Your task to perform on an android device: Open Android settings Image 0: 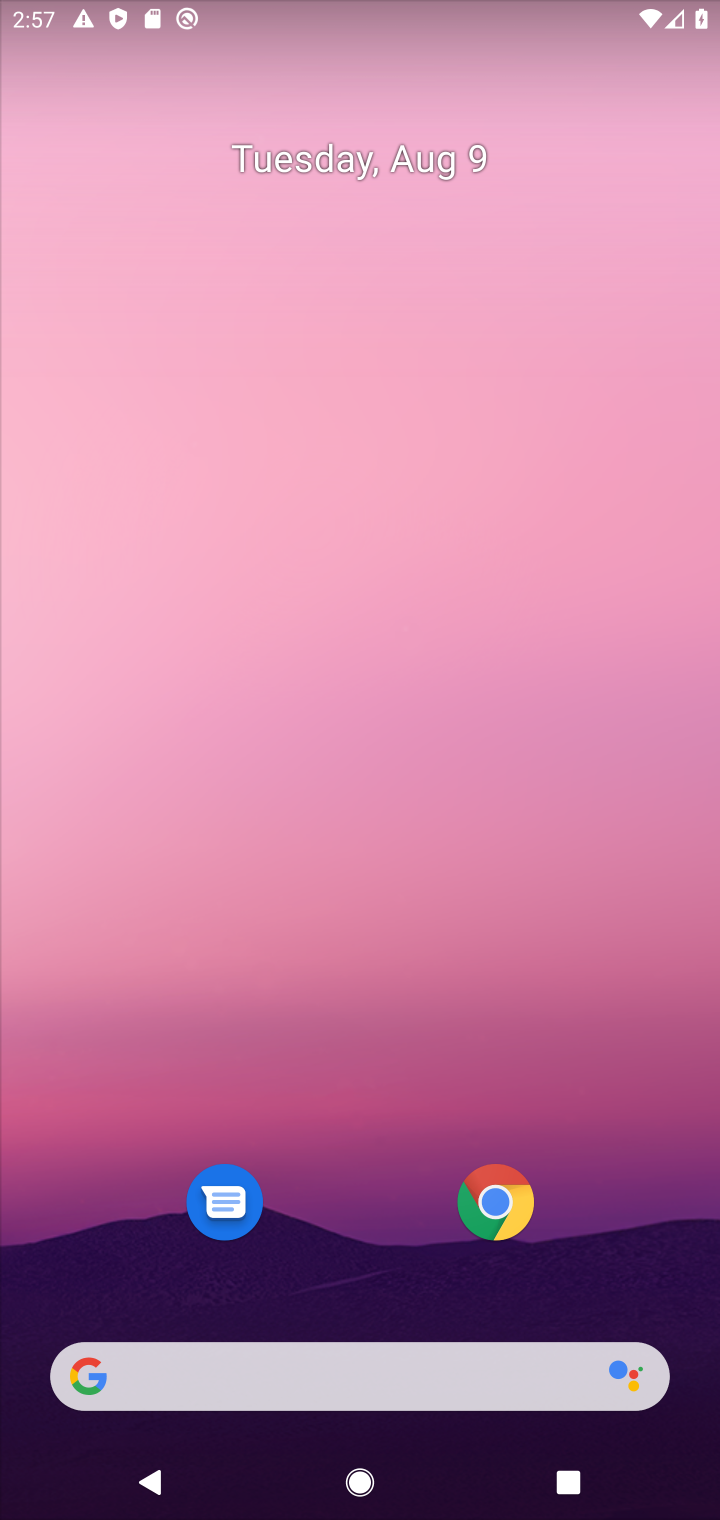
Step 0: press home button
Your task to perform on an android device: Open Android settings Image 1: 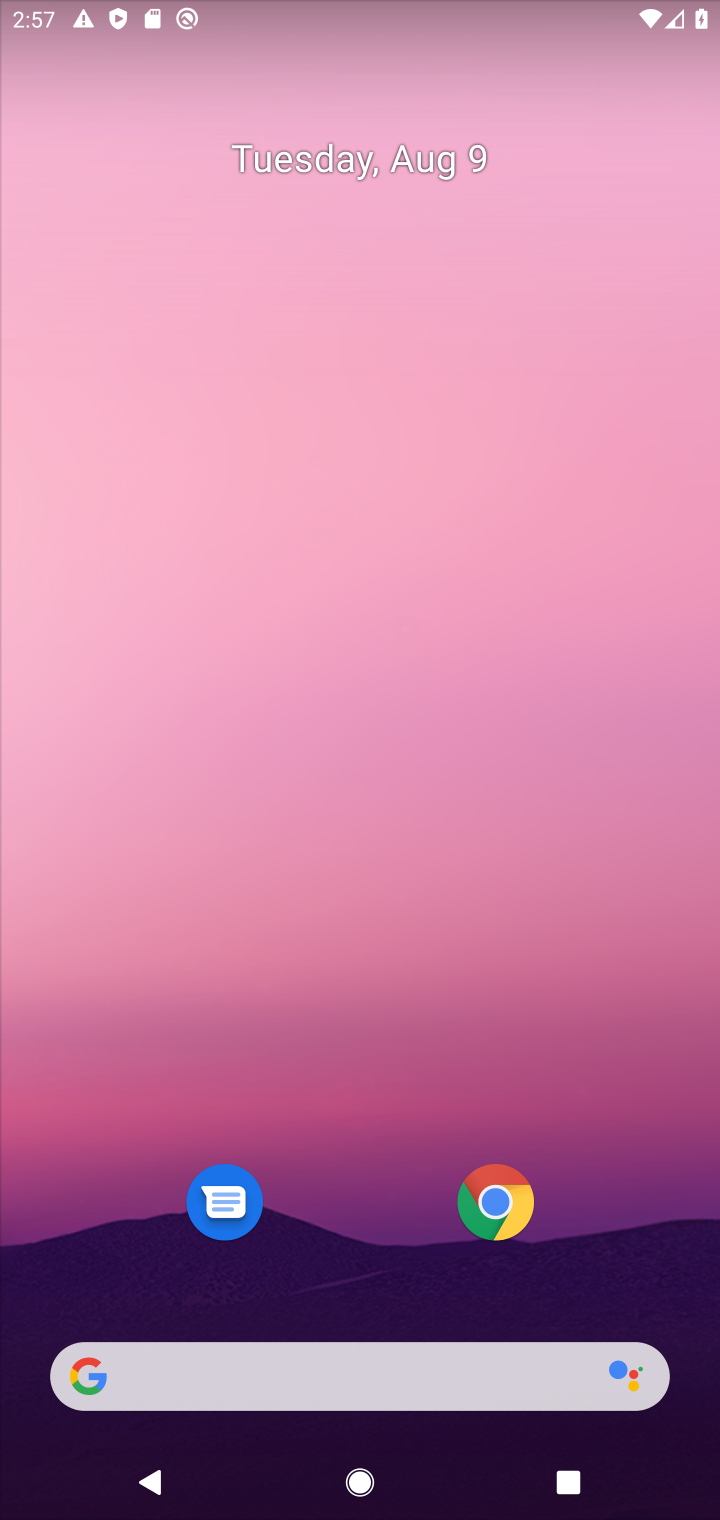
Step 1: drag from (394, 740) to (418, 295)
Your task to perform on an android device: Open Android settings Image 2: 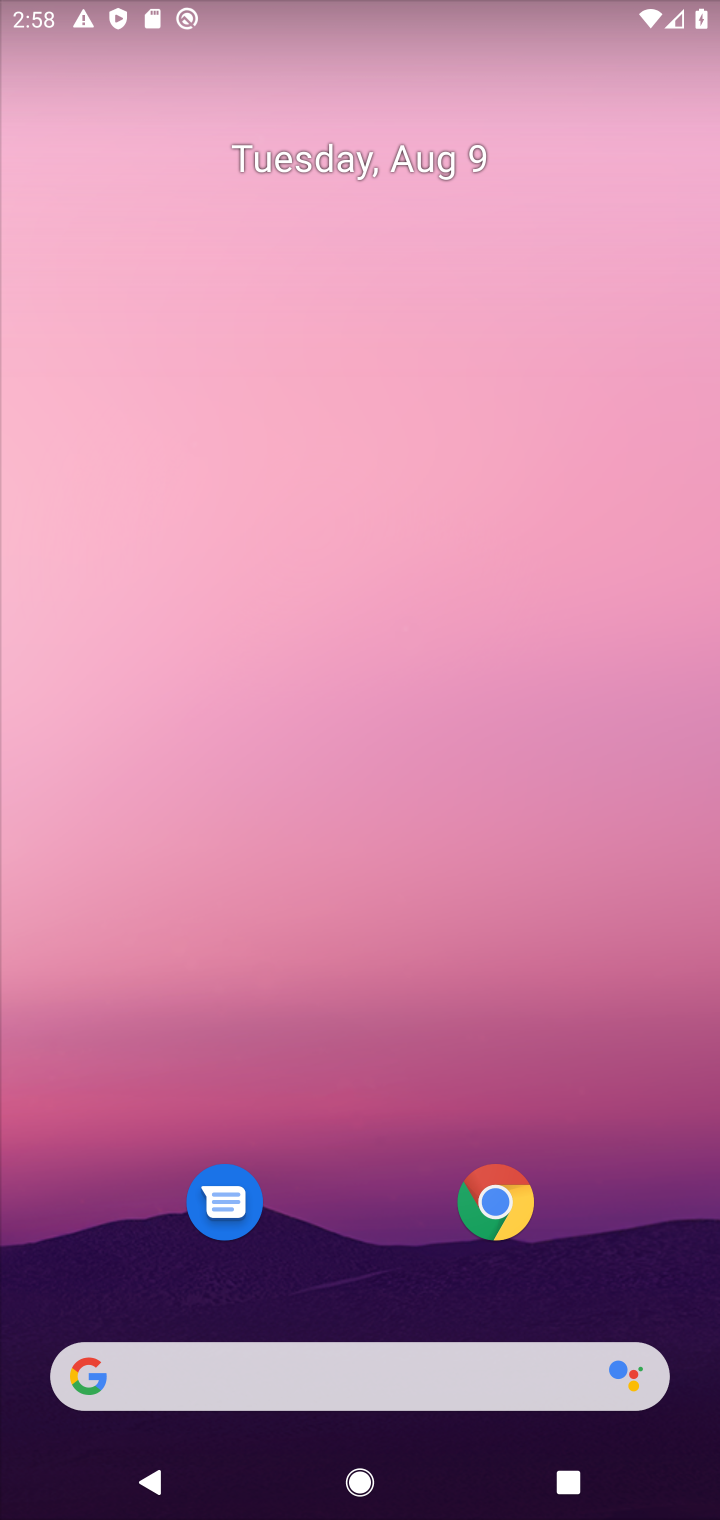
Step 2: drag from (436, 1078) to (448, 367)
Your task to perform on an android device: Open Android settings Image 3: 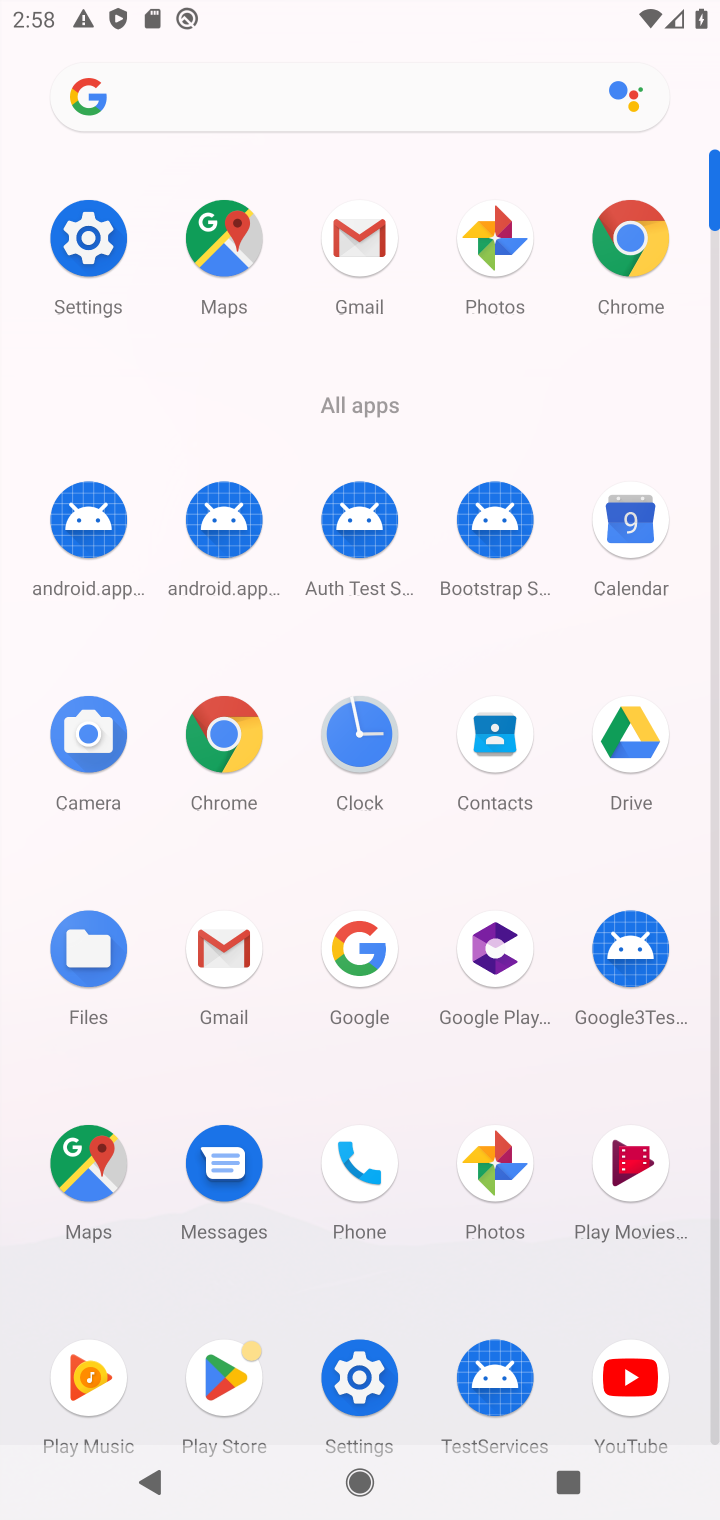
Step 3: click (61, 268)
Your task to perform on an android device: Open Android settings Image 4: 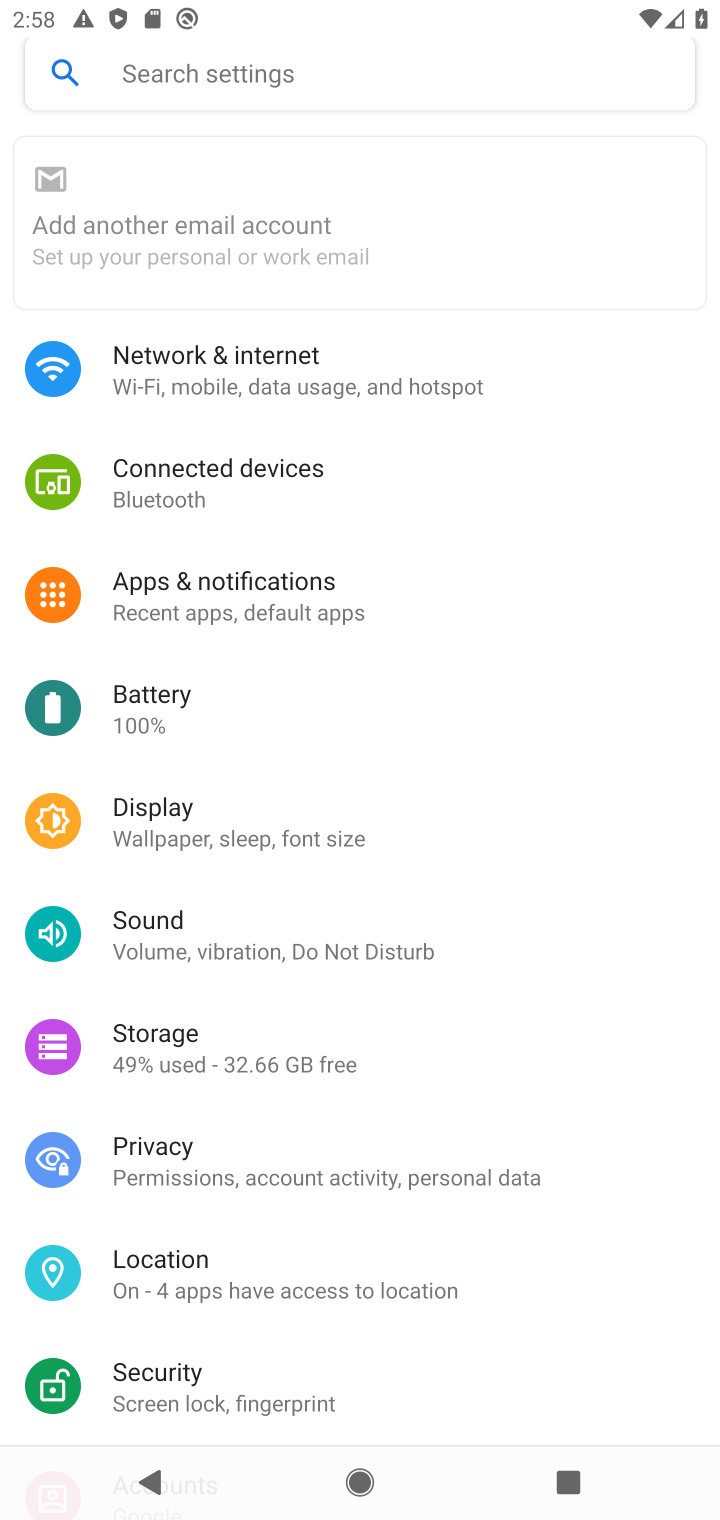
Step 4: drag from (180, 1297) to (195, 294)
Your task to perform on an android device: Open Android settings Image 5: 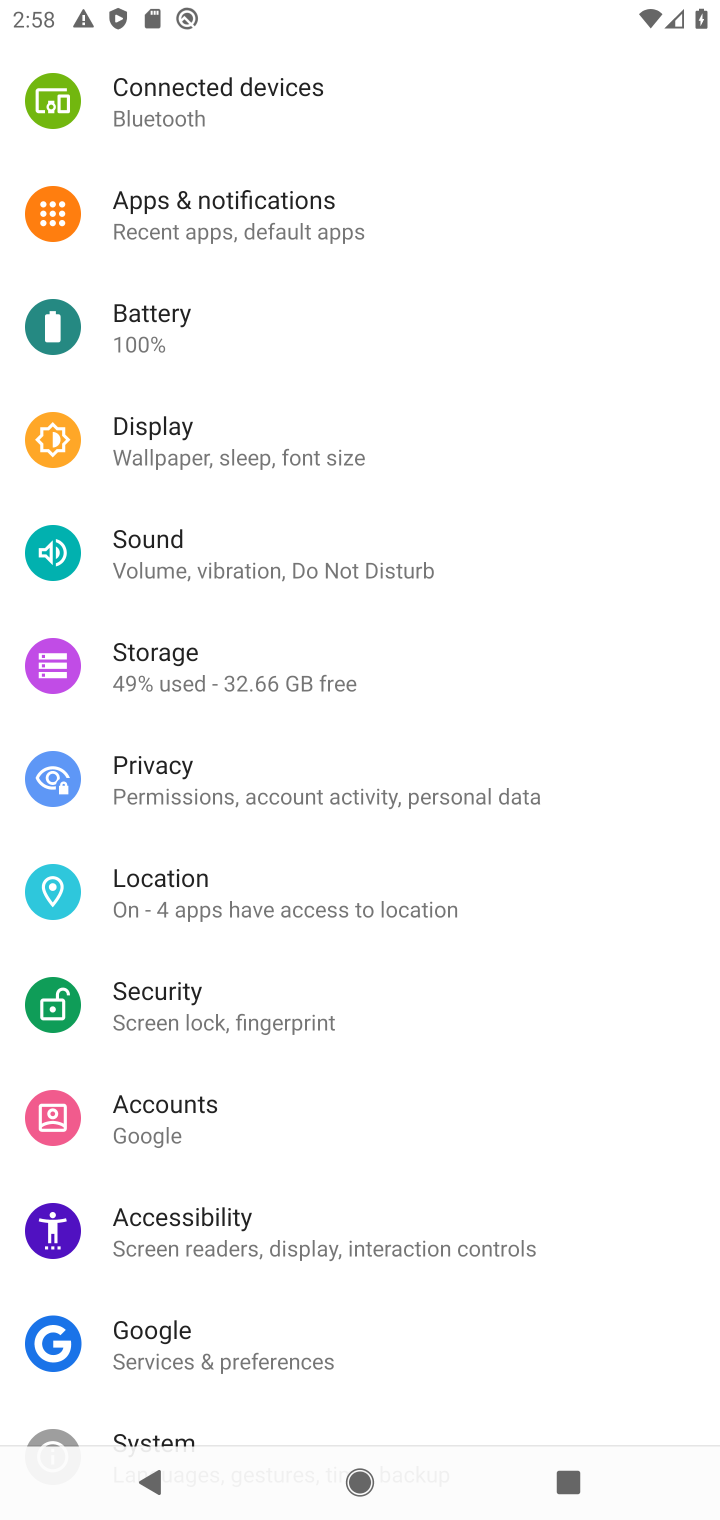
Step 5: drag from (229, 1088) to (232, 634)
Your task to perform on an android device: Open Android settings Image 6: 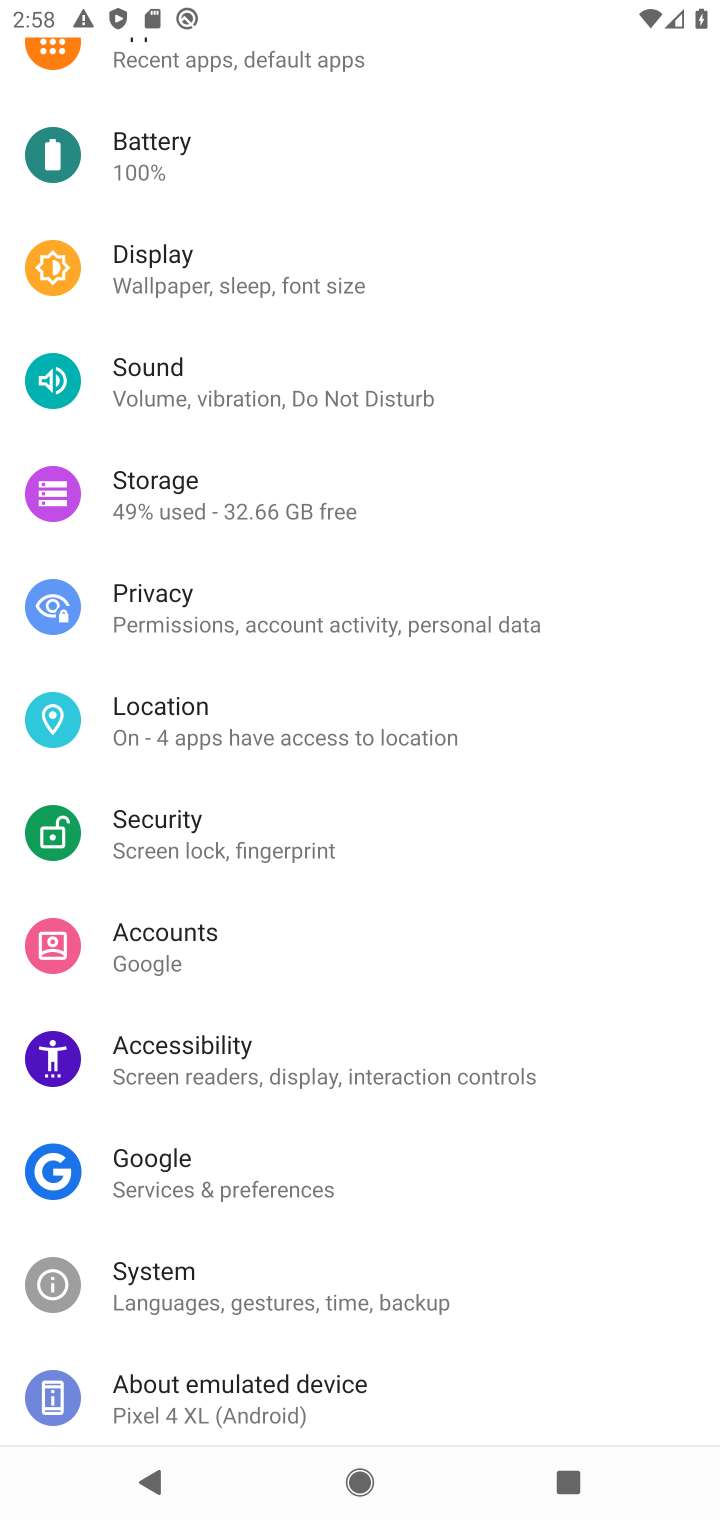
Step 6: click (363, 1379)
Your task to perform on an android device: Open Android settings Image 7: 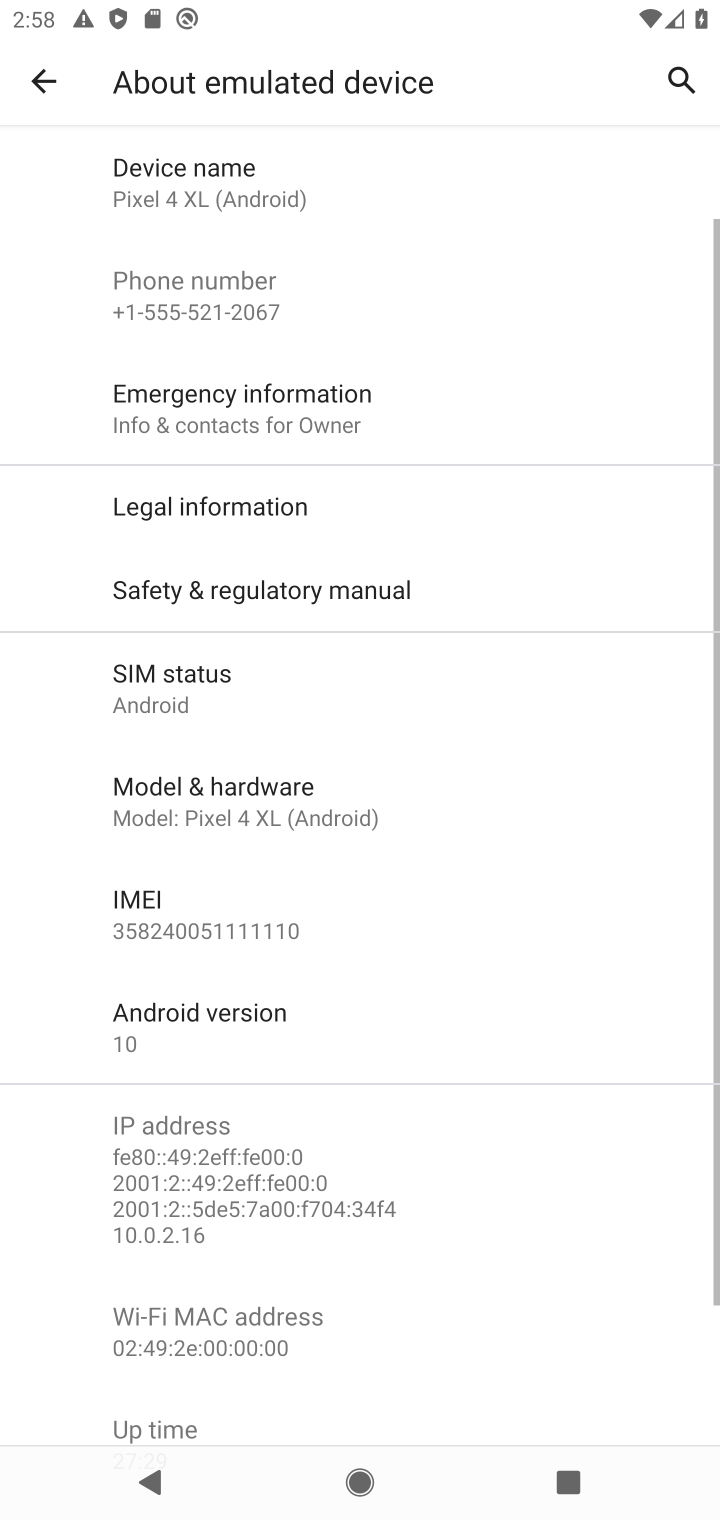
Step 7: click (203, 1040)
Your task to perform on an android device: Open Android settings Image 8: 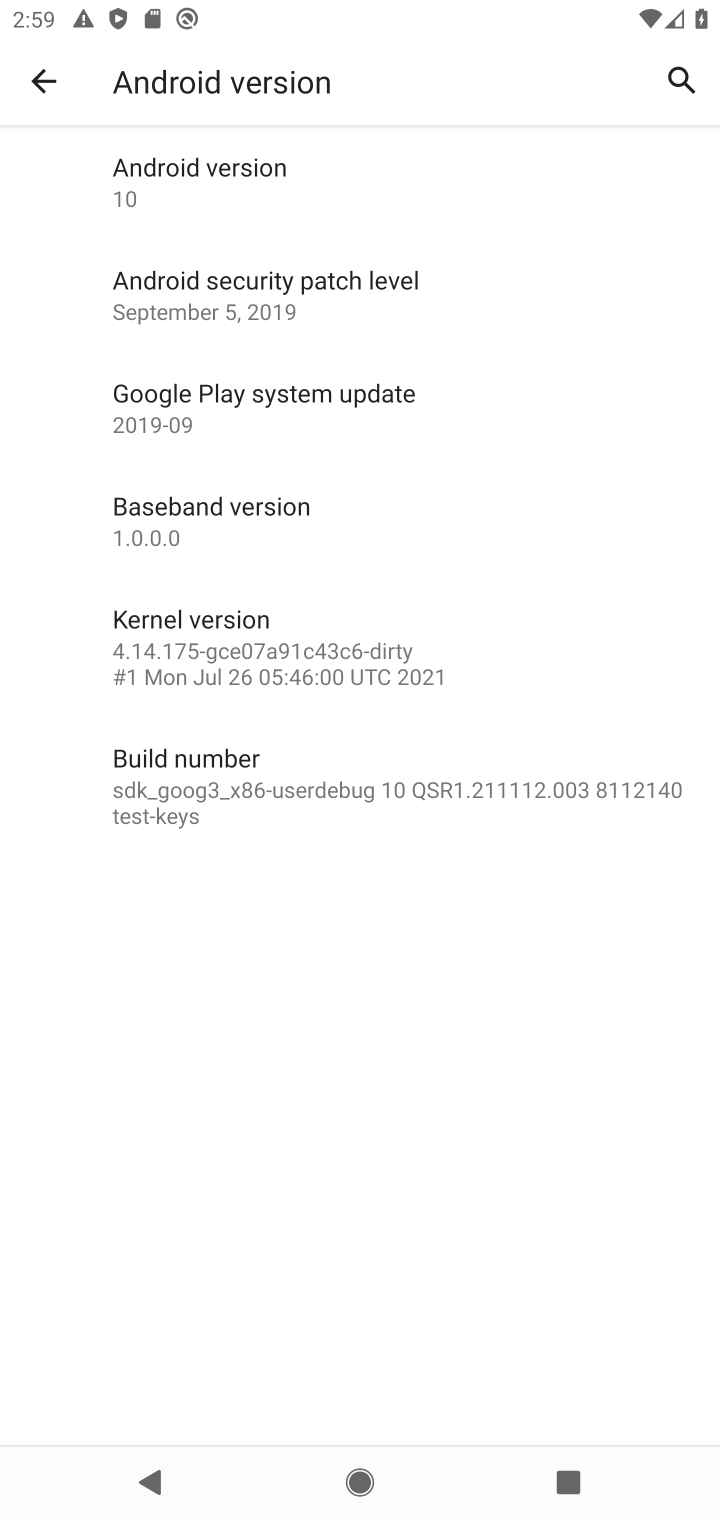
Step 8: task complete